Your task to perform on an android device: change the clock display to digital Image 0: 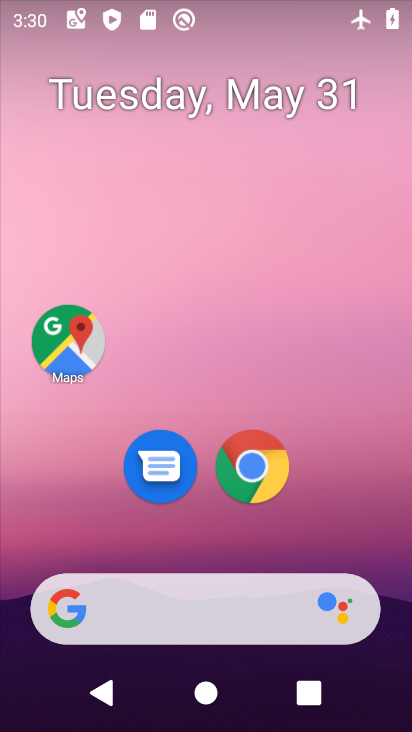
Step 0: drag from (220, 543) to (253, 82)
Your task to perform on an android device: change the clock display to digital Image 1: 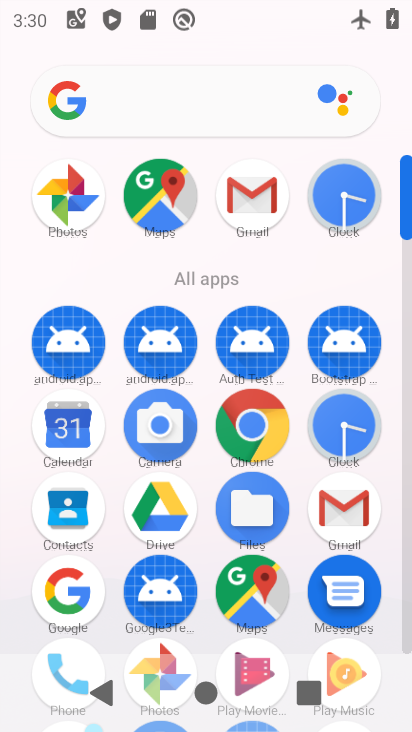
Step 1: drag from (202, 574) to (247, 202)
Your task to perform on an android device: change the clock display to digital Image 2: 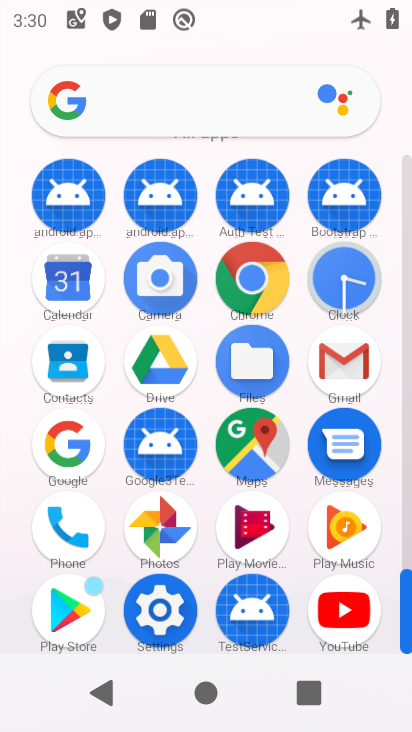
Step 2: click (351, 284)
Your task to perform on an android device: change the clock display to digital Image 3: 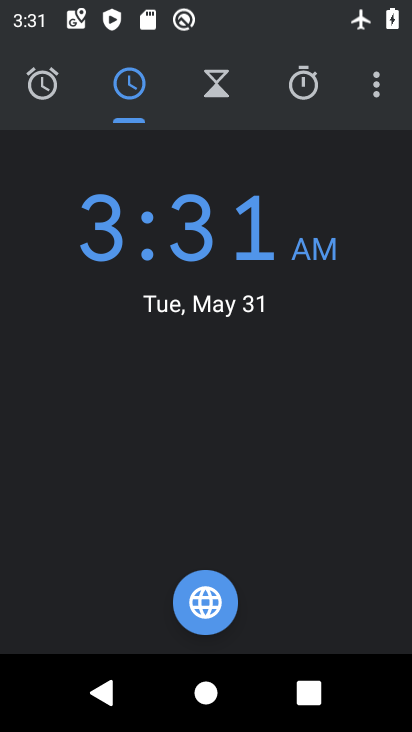
Step 3: click (379, 83)
Your task to perform on an android device: change the clock display to digital Image 4: 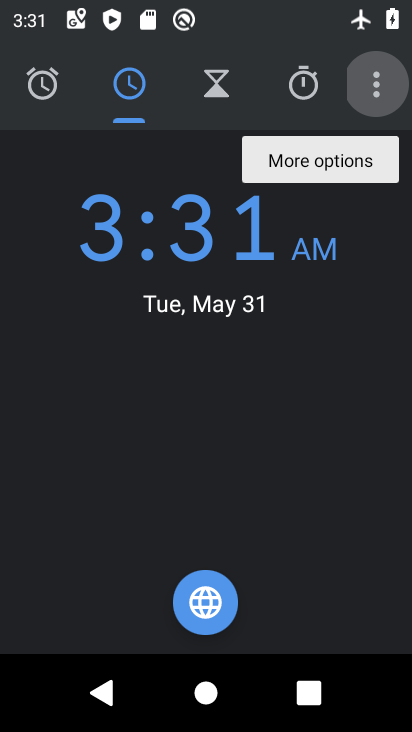
Step 4: click (377, 83)
Your task to perform on an android device: change the clock display to digital Image 5: 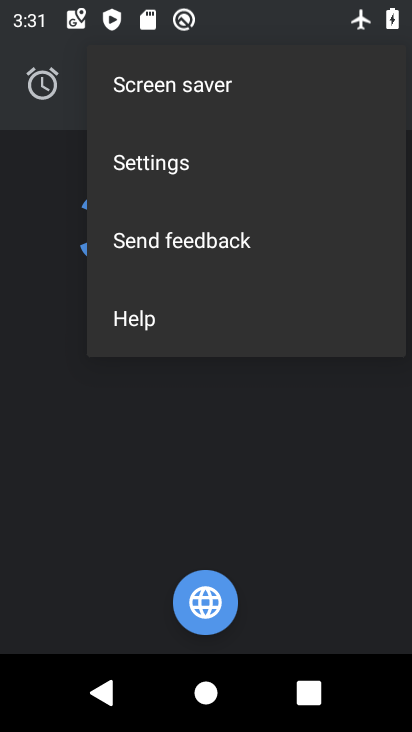
Step 5: click (181, 160)
Your task to perform on an android device: change the clock display to digital Image 6: 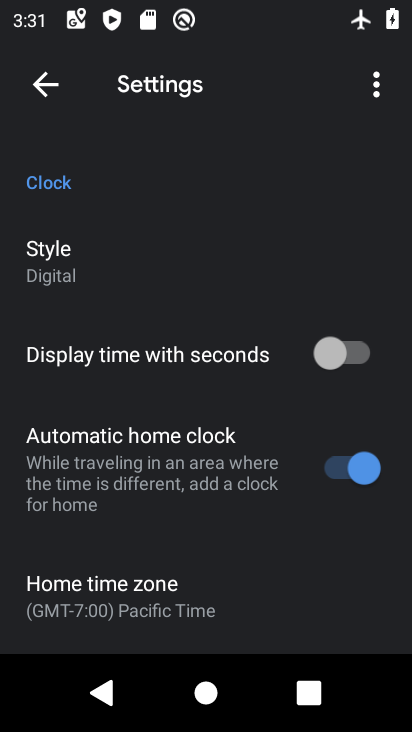
Step 6: task complete